Your task to perform on an android device: Show me popular games on the Play Store Image 0: 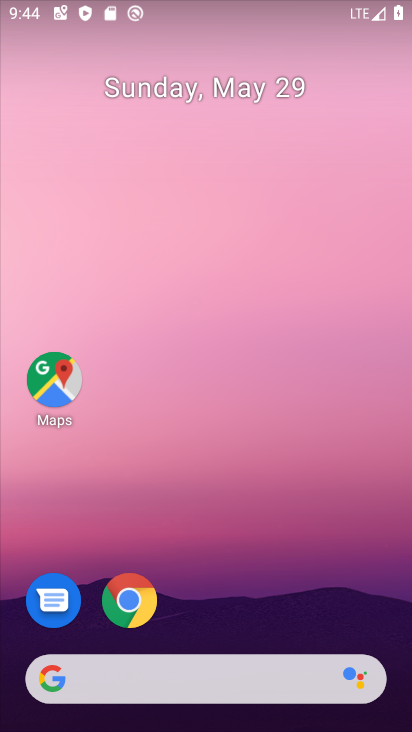
Step 0: drag from (298, 518) to (291, 16)
Your task to perform on an android device: Show me popular games on the Play Store Image 1: 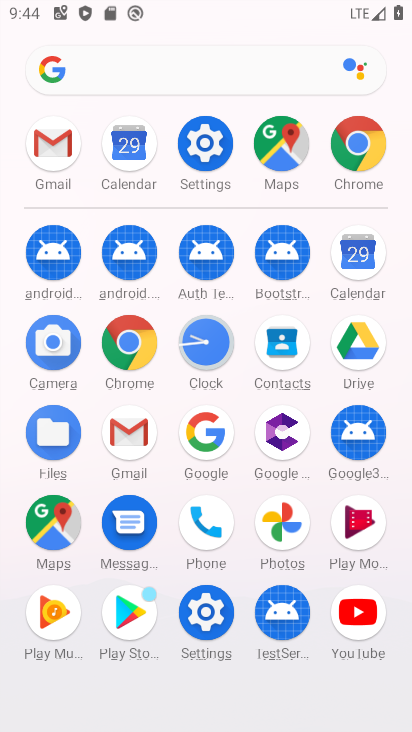
Step 1: click (128, 607)
Your task to perform on an android device: Show me popular games on the Play Store Image 2: 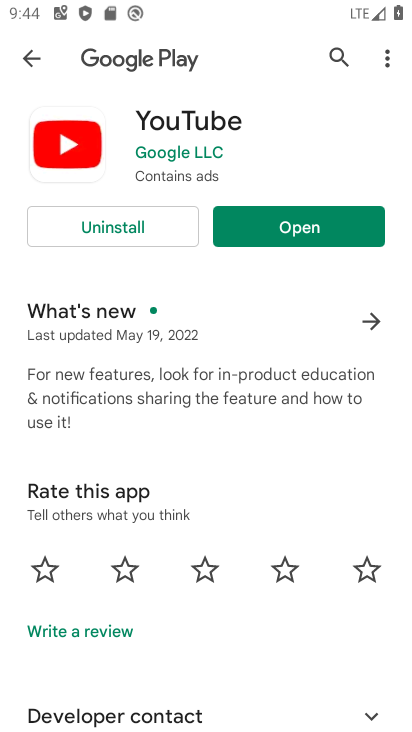
Step 2: click (26, 57)
Your task to perform on an android device: Show me popular games on the Play Store Image 3: 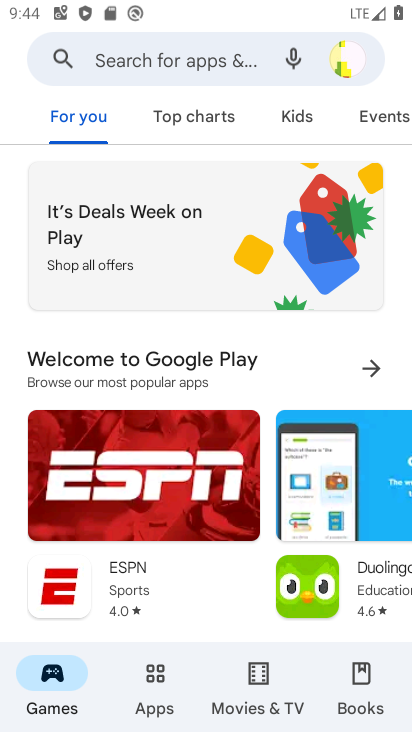
Step 3: click (163, 52)
Your task to perform on an android device: Show me popular games on the Play Store Image 4: 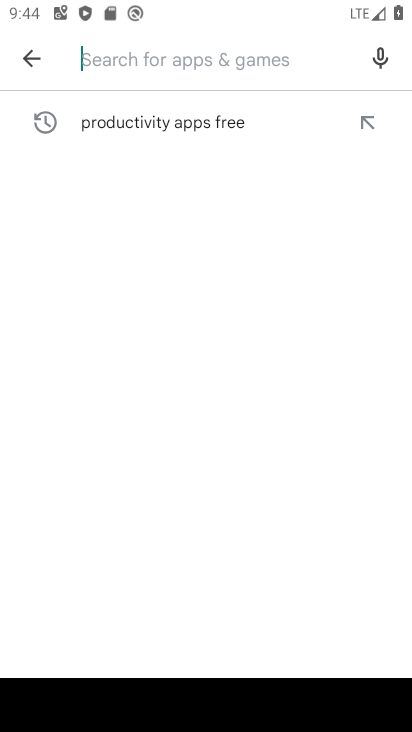
Step 4: type " popular games "
Your task to perform on an android device: Show me popular games on the Play Store Image 5: 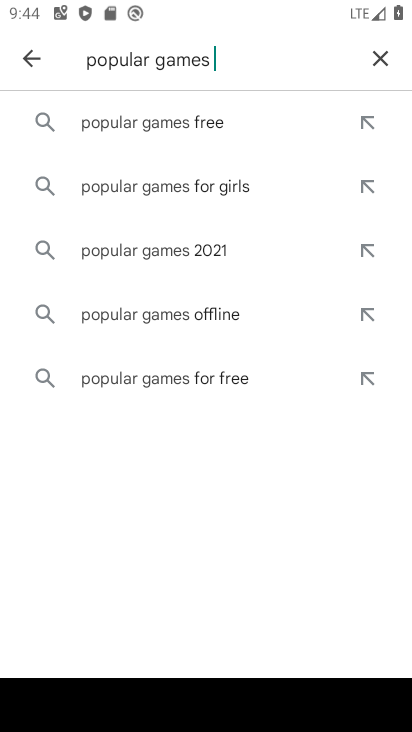
Step 5: click (143, 114)
Your task to perform on an android device: Show me popular games on the Play Store Image 6: 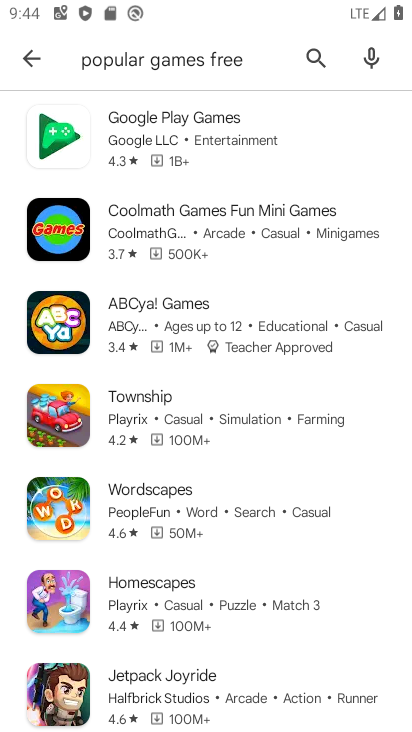
Step 6: task complete